Your task to perform on an android device: Open privacy settings Image 0: 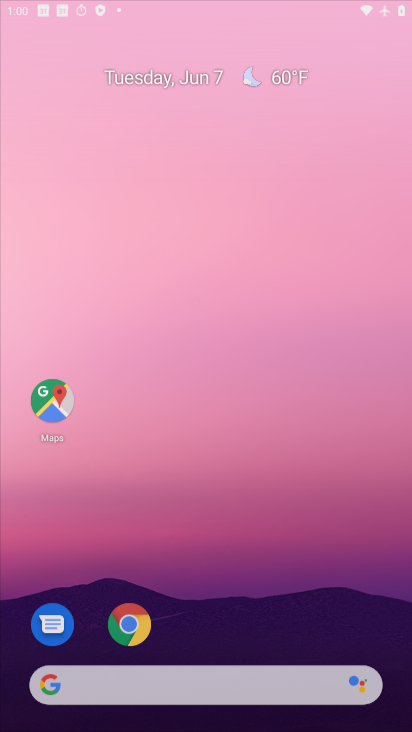
Step 0: click (294, 58)
Your task to perform on an android device: Open privacy settings Image 1: 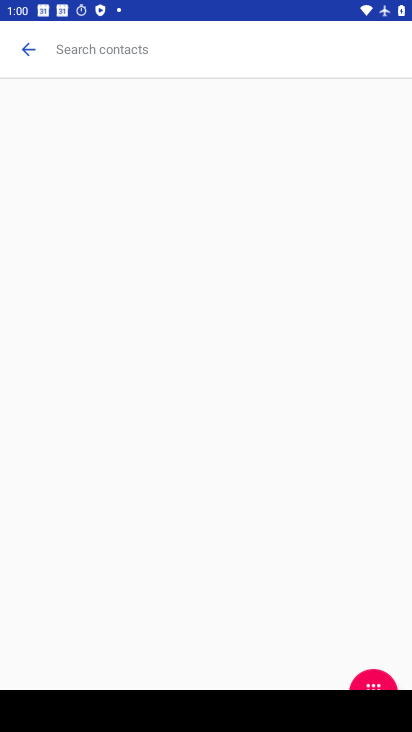
Step 1: press home button
Your task to perform on an android device: Open privacy settings Image 2: 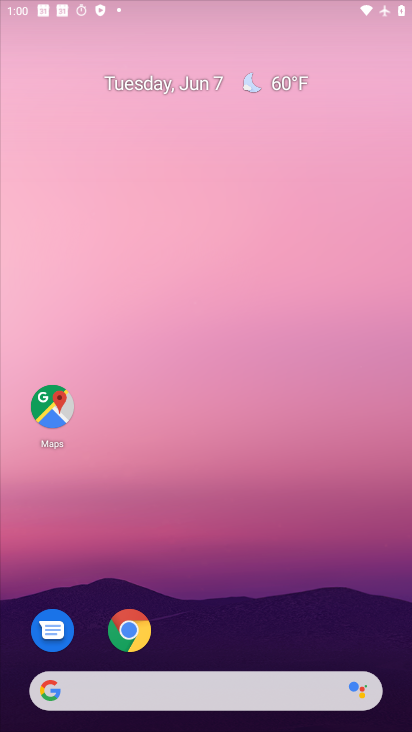
Step 2: drag from (370, 609) to (272, 68)
Your task to perform on an android device: Open privacy settings Image 3: 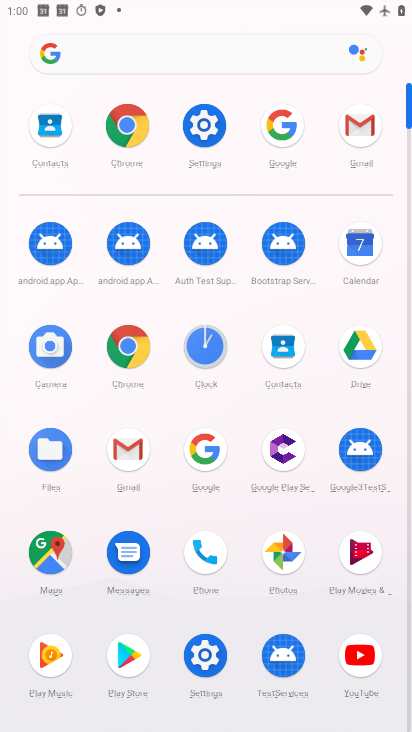
Step 3: click (210, 655)
Your task to perform on an android device: Open privacy settings Image 4: 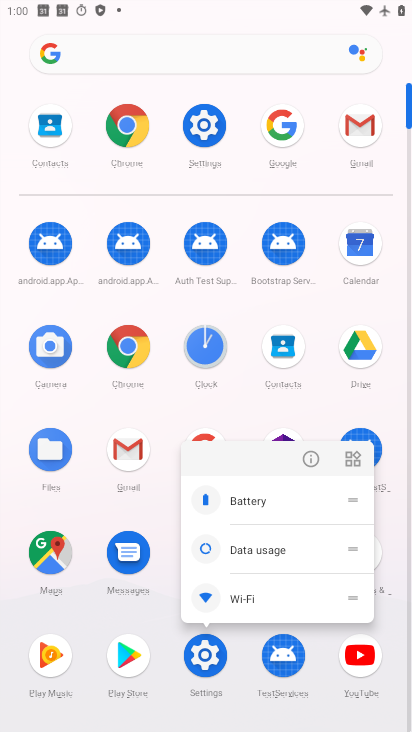
Step 4: click (203, 650)
Your task to perform on an android device: Open privacy settings Image 5: 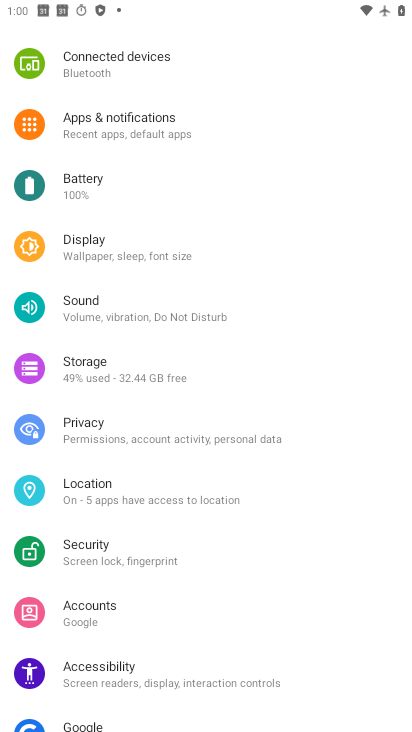
Step 5: click (124, 433)
Your task to perform on an android device: Open privacy settings Image 6: 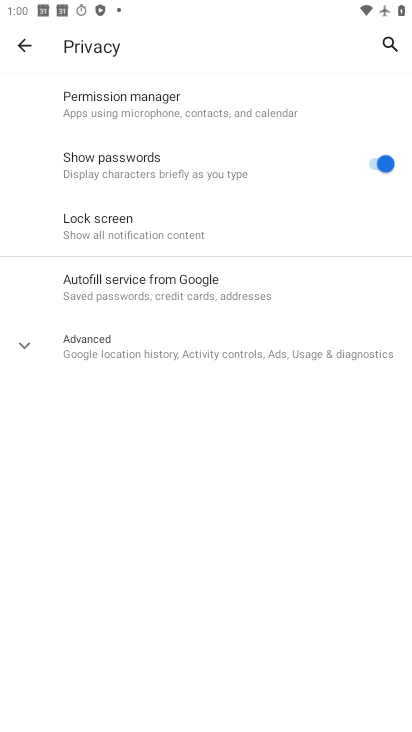
Step 6: task complete